Your task to perform on an android device: Open Maps and search for coffee Image 0: 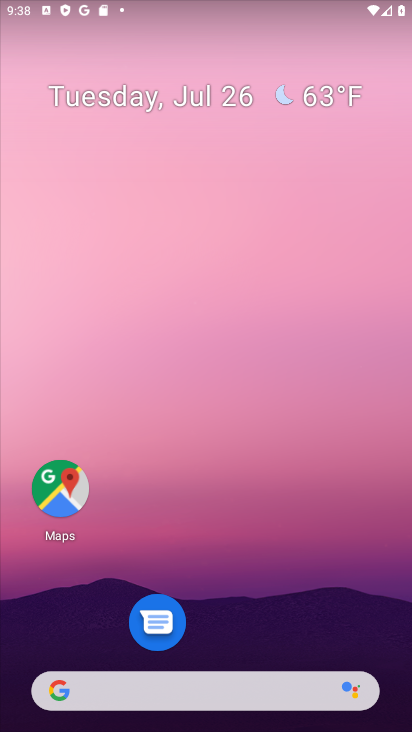
Step 0: drag from (233, 609) to (17, 241)
Your task to perform on an android device: Open Maps and search for coffee Image 1: 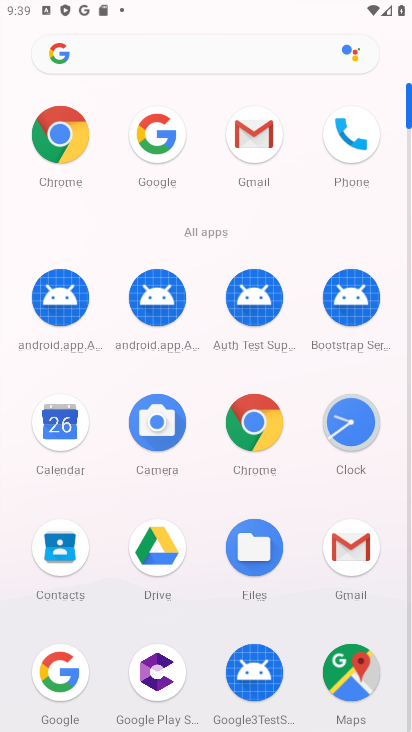
Step 1: click (351, 700)
Your task to perform on an android device: Open Maps and search for coffee Image 2: 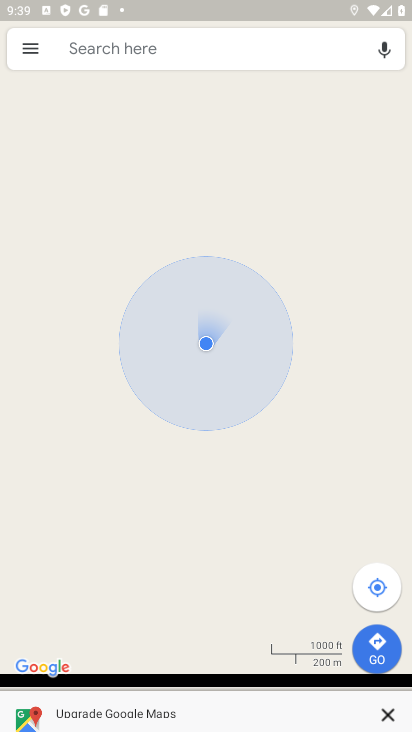
Step 2: click (131, 65)
Your task to perform on an android device: Open Maps and search for coffee Image 3: 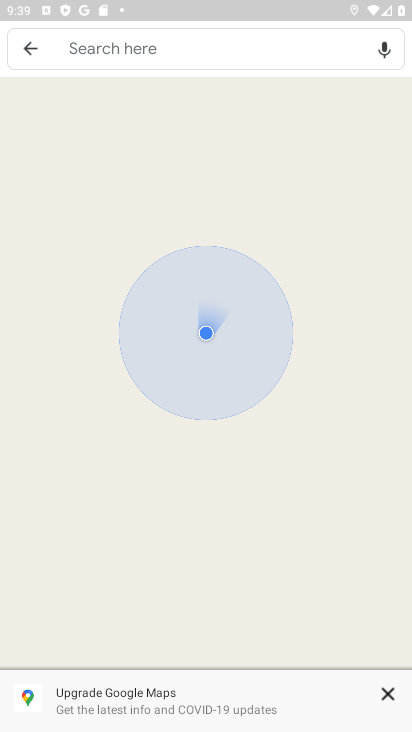
Step 3: click (129, 46)
Your task to perform on an android device: Open Maps and search for coffee Image 4: 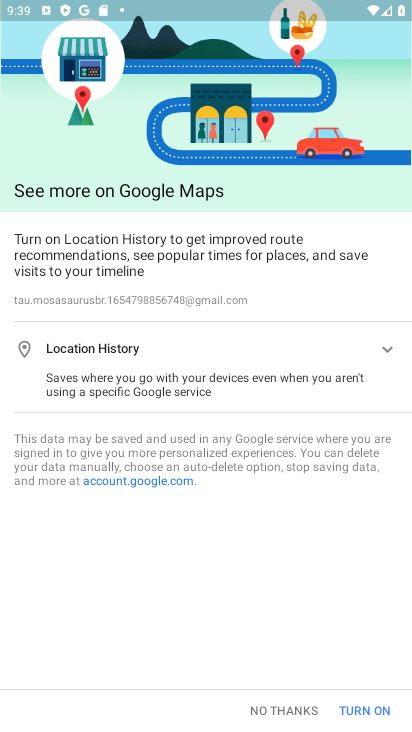
Step 4: press back button
Your task to perform on an android device: Open Maps and search for coffee Image 5: 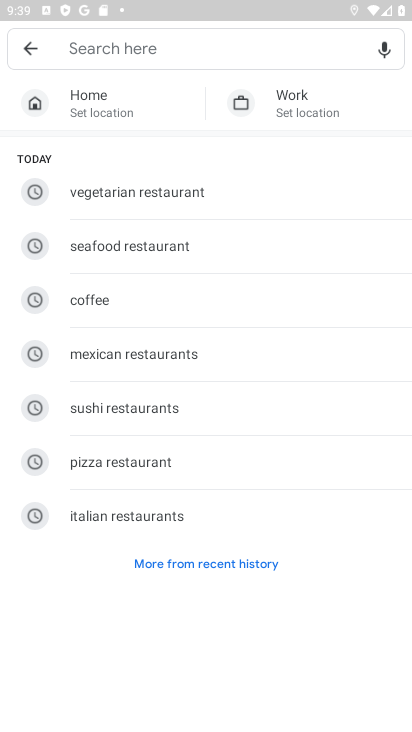
Step 5: click (148, 304)
Your task to perform on an android device: Open Maps and search for coffee Image 6: 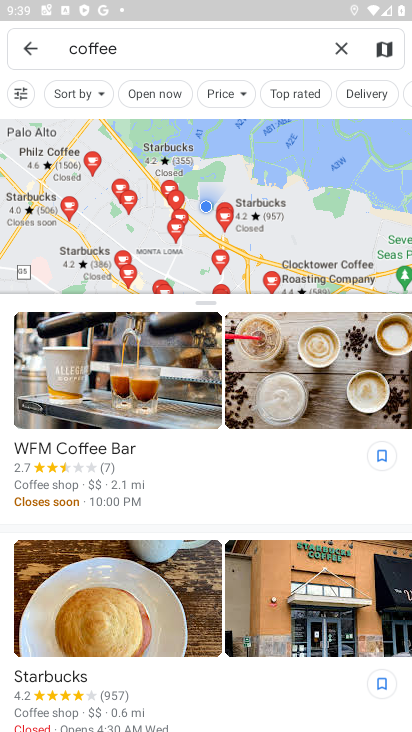
Step 6: task complete